Your task to perform on an android device: Open eBay Image 0: 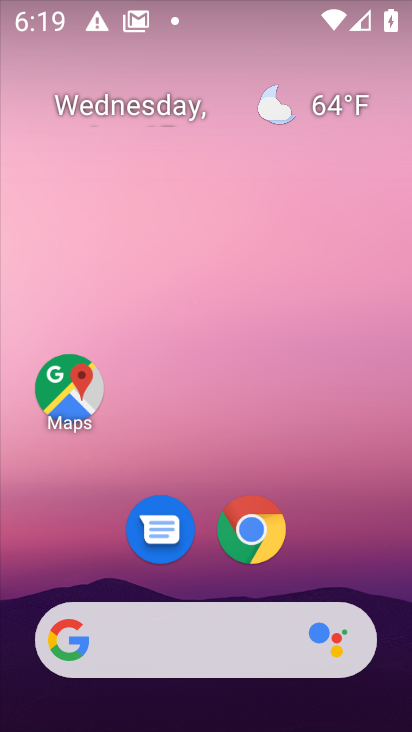
Step 0: click (257, 529)
Your task to perform on an android device: Open eBay Image 1: 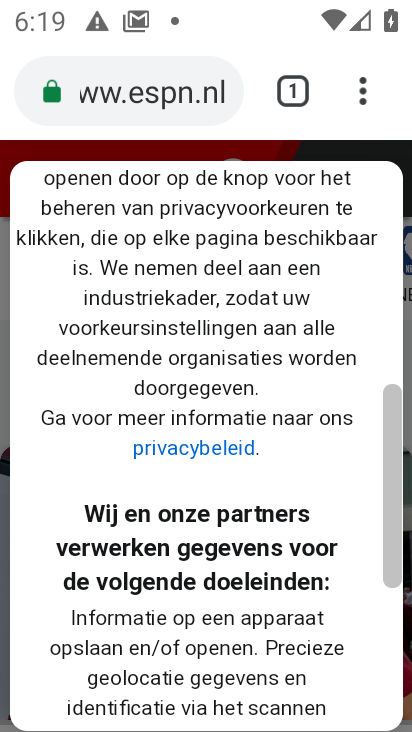
Step 1: press back button
Your task to perform on an android device: Open eBay Image 2: 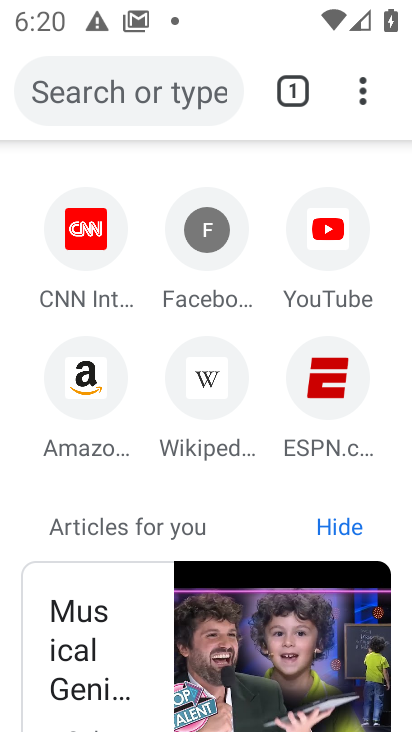
Step 2: click (195, 86)
Your task to perform on an android device: Open eBay Image 3: 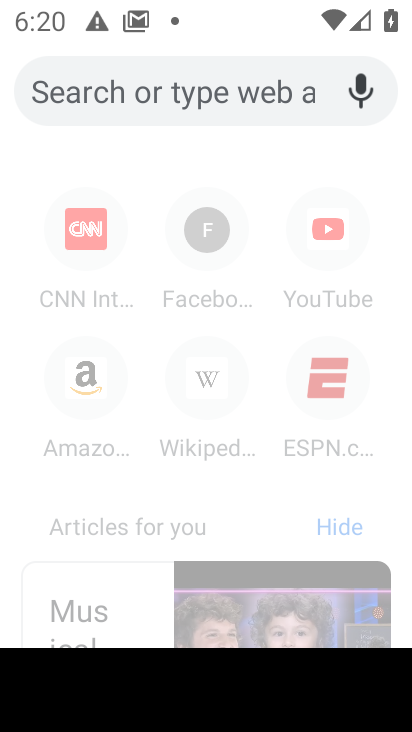
Step 3: type "www.ebay.com"
Your task to perform on an android device: Open eBay Image 4: 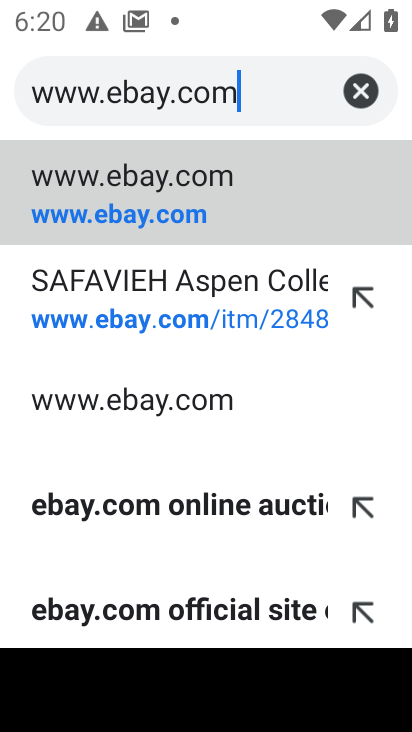
Step 4: click (88, 195)
Your task to perform on an android device: Open eBay Image 5: 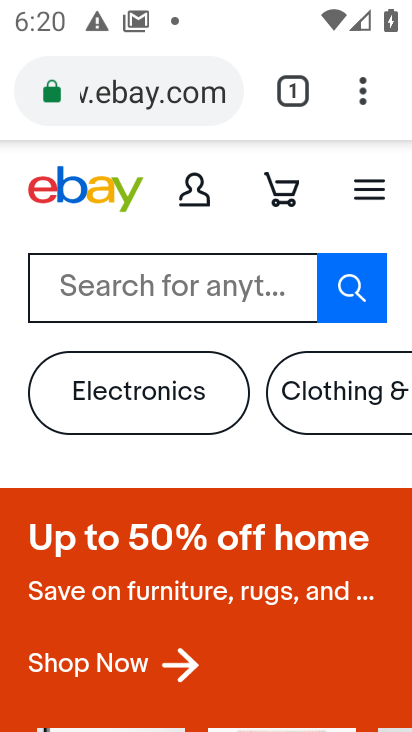
Step 5: task complete